Your task to perform on an android device: Search for Mexican restaurants on Maps Image 0: 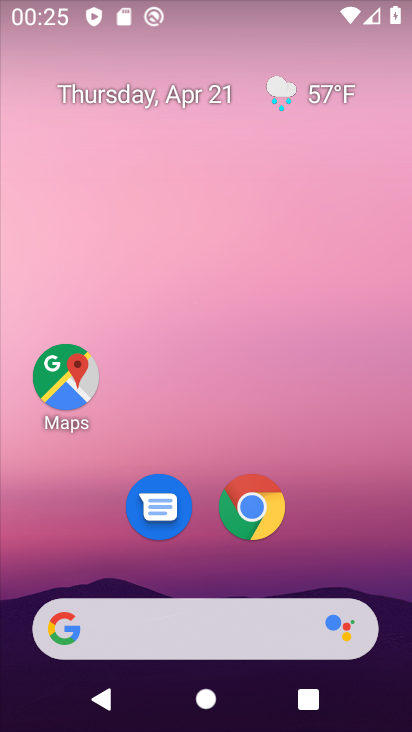
Step 0: click (58, 379)
Your task to perform on an android device: Search for Mexican restaurants on Maps Image 1: 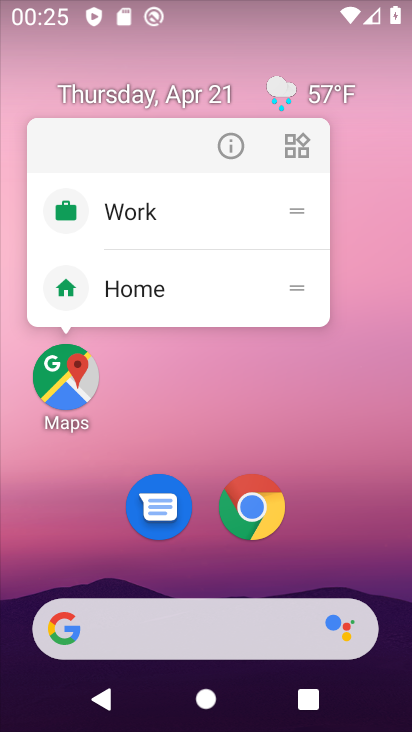
Step 1: click (247, 147)
Your task to perform on an android device: Search for Mexican restaurants on Maps Image 2: 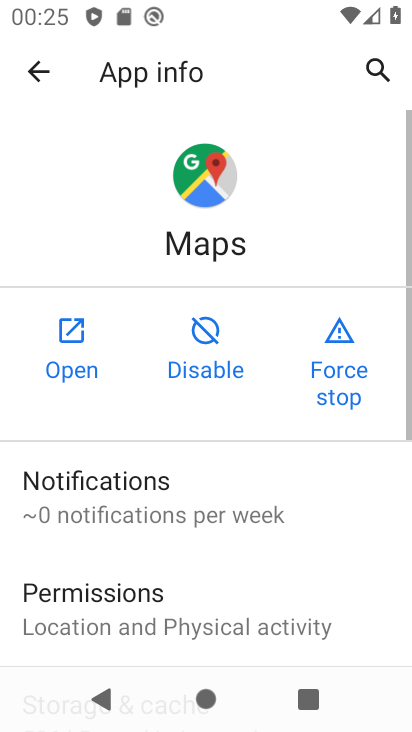
Step 2: click (74, 342)
Your task to perform on an android device: Search for Mexican restaurants on Maps Image 3: 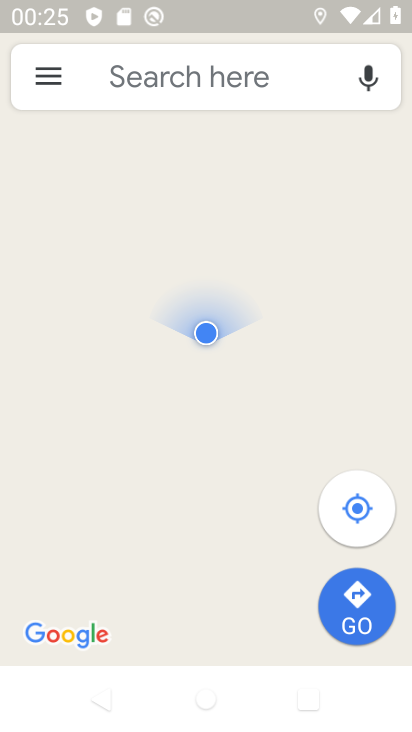
Step 3: click (141, 83)
Your task to perform on an android device: Search for Mexican restaurants on Maps Image 4: 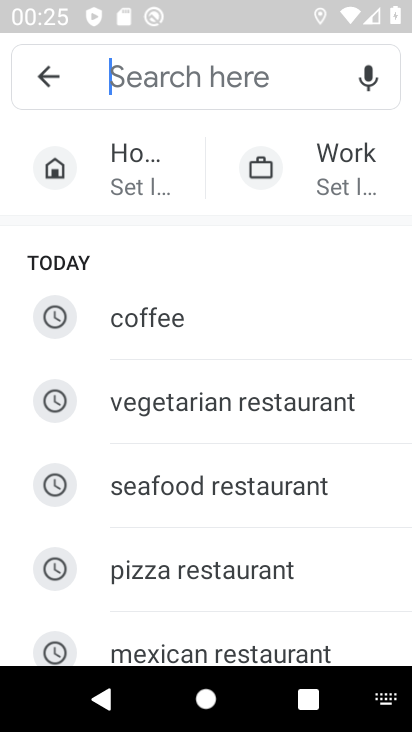
Step 4: click (193, 638)
Your task to perform on an android device: Search for Mexican restaurants on Maps Image 5: 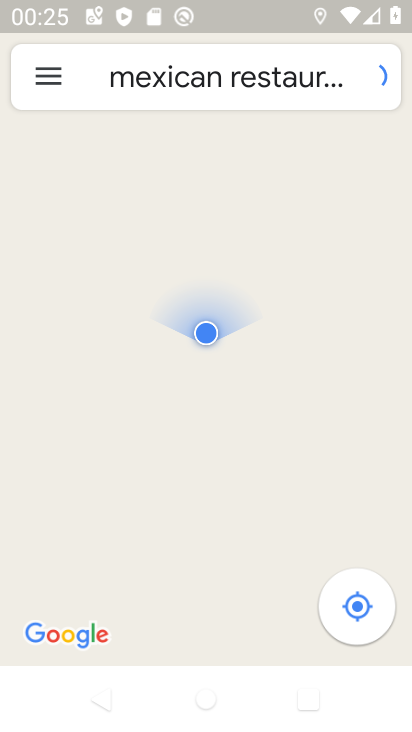
Step 5: task complete